Your task to perform on an android device: Open CNN.com Image 0: 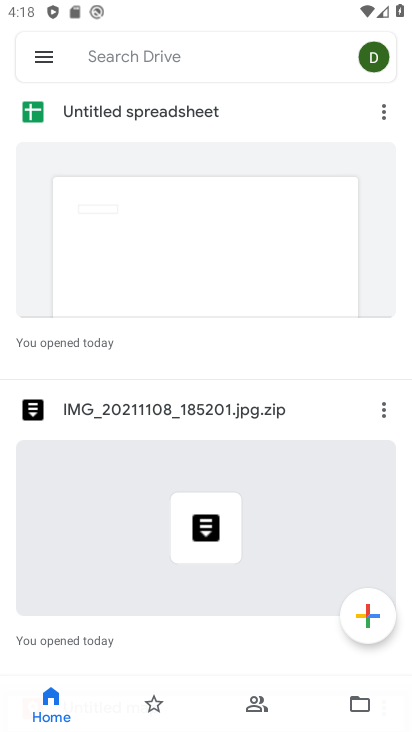
Step 0: press home button
Your task to perform on an android device: Open CNN.com Image 1: 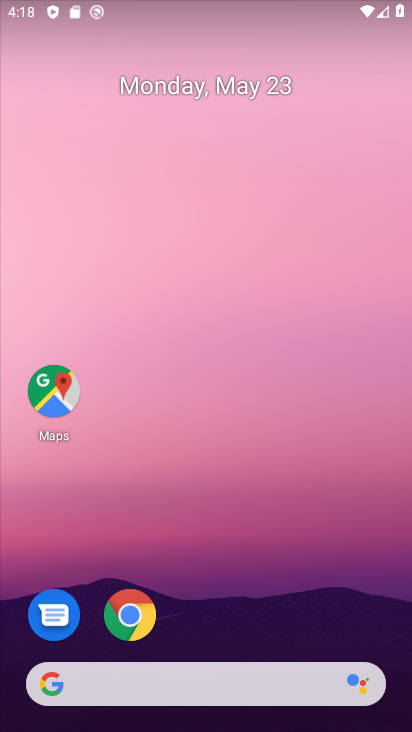
Step 1: click (281, 683)
Your task to perform on an android device: Open CNN.com Image 2: 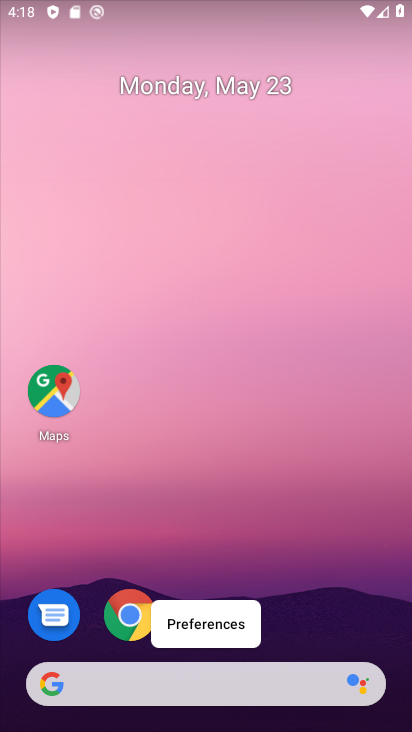
Step 2: click (281, 684)
Your task to perform on an android device: Open CNN.com Image 3: 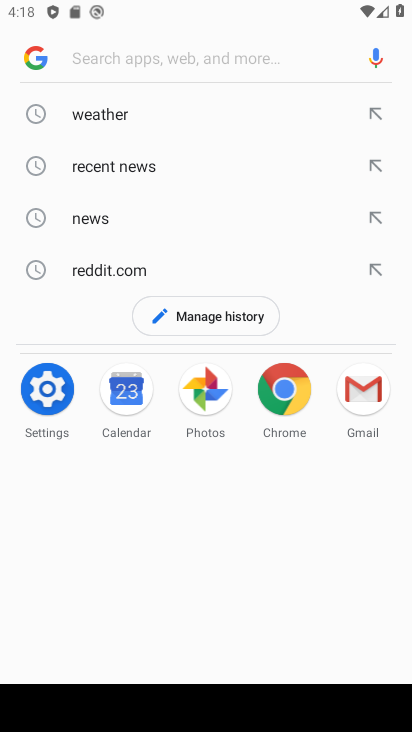
Step 3: type "cnn.com"
Your task to perform on an android device: Open CNN.com Image 4: 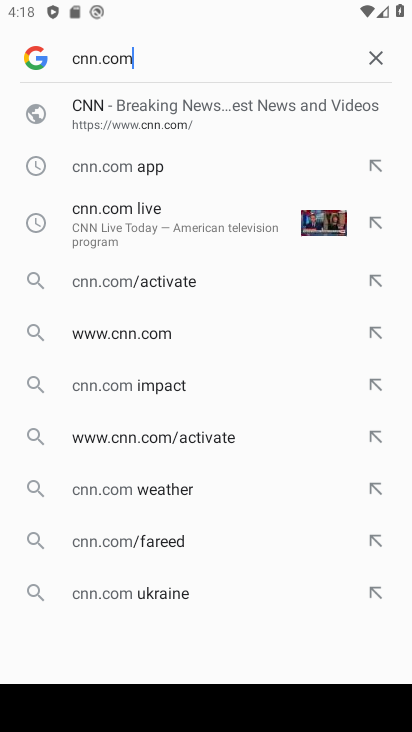
Step 4: click (87, 101)
Your task to perform on an android device: Open CNN.com Image 5: 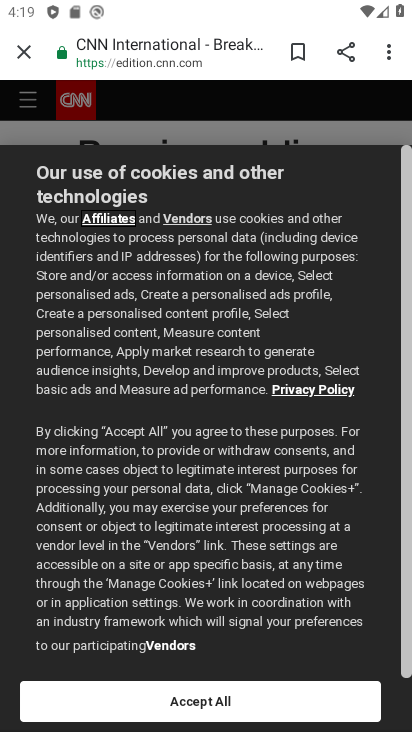
Step 5: task complete